Your task to perform on an android device: toggle priority inbox in the gmail app Image 0: 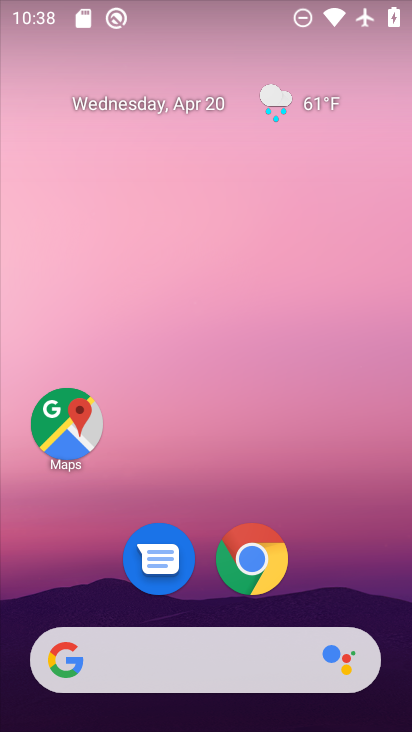
Step 0: drag from (379, 613) to (312, 207)
Your task to perform on an android device: toggle priority inbox in the gmail app Image 1: 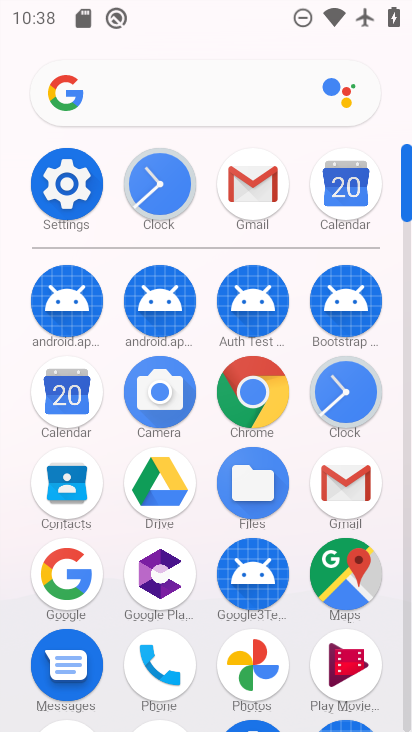
Step 1: click (342, 481)
Your task to perform on an android device: toggle priority inbox in the gmail app Image 2: 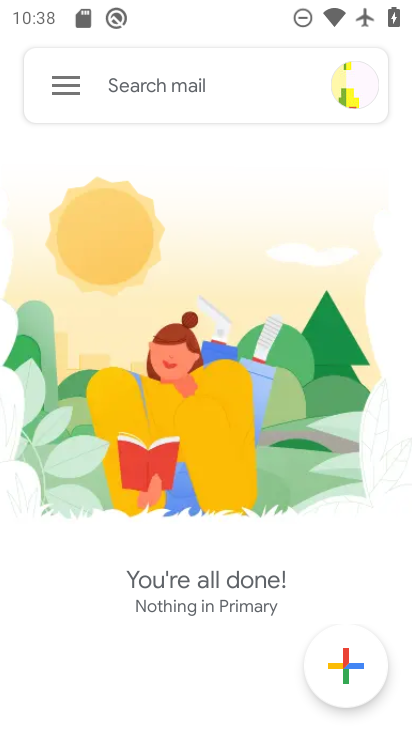
Step 2: click (65, 89)
Your task to perform on an android device: toggle priority inbox in the gmail app Image 3: 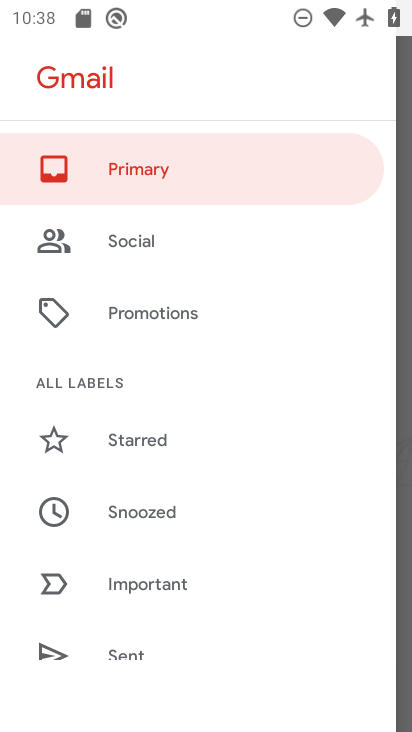
Step 3: drag from (228, 632) to (240, 302)
Your task to perform on an android device: toggle priority inbox in the gmail app Image 4: 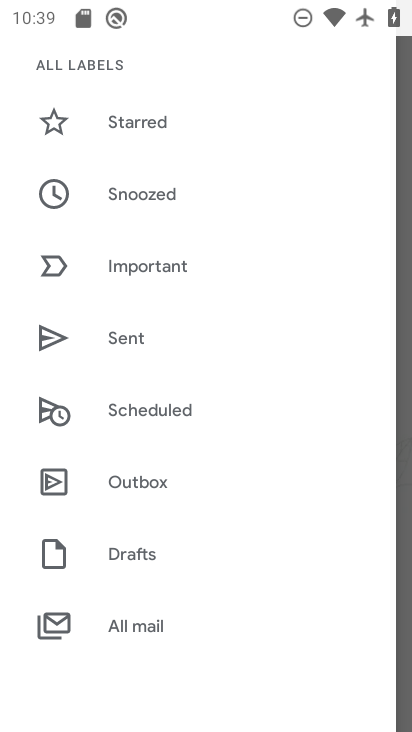
Step 4: drag from (234, 566) to (271, 97)
Your task to perform on an android device: toggle priority inbox in the gmail app Image 5: 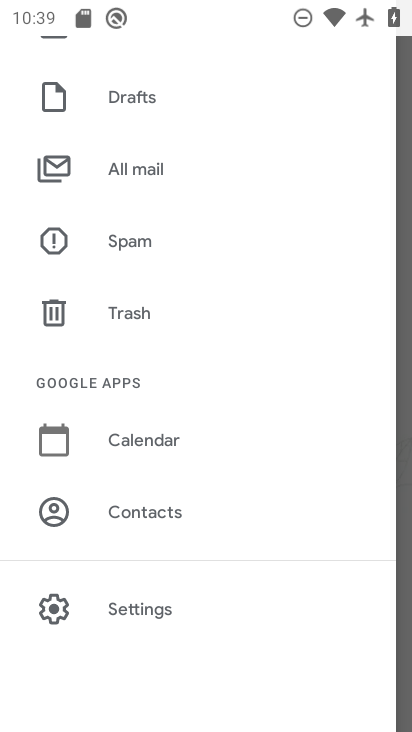
Step 5: click (128, 610)
Your task to perform on an android device: toggle priority inbox in the gmail app Image 6: 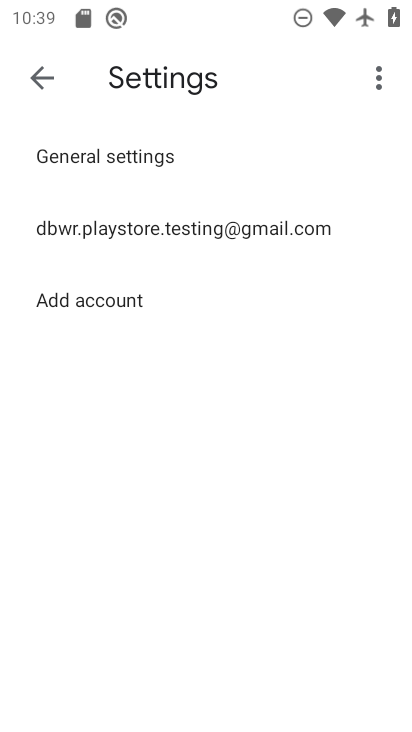
Step 6: click (128, 224)
Your task to perform on an android device: toggle priority inbox in the gmail app Image 7: 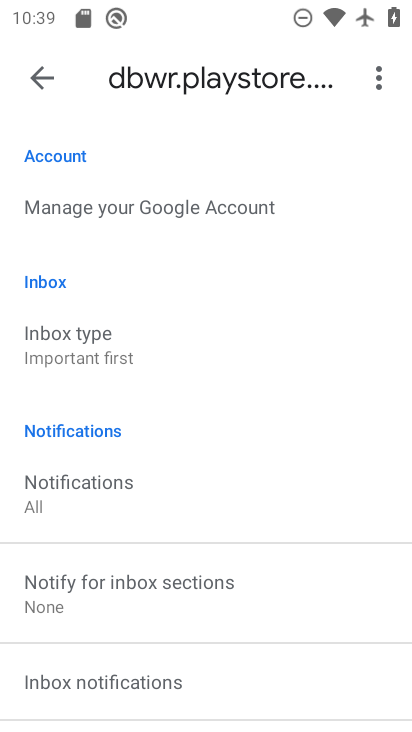
Step 7: click (80, 347)
Your task to perform on an android device: toggle priority inbox in the gmail app Image 8: 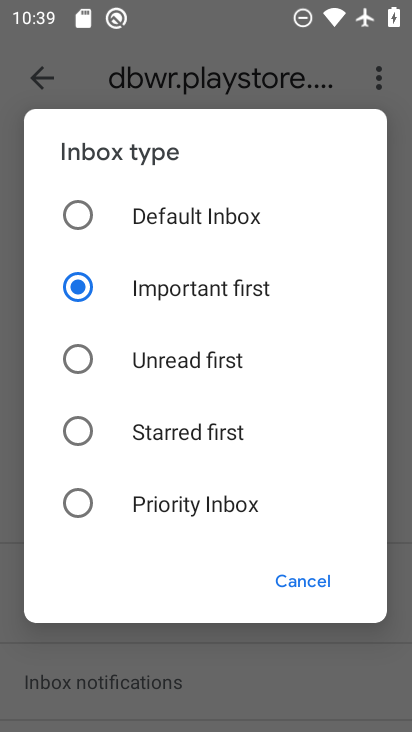
Step 8: click (83, 504)
Your task to perform on an android device: toggle priority inbox in the gmail app Image 9: 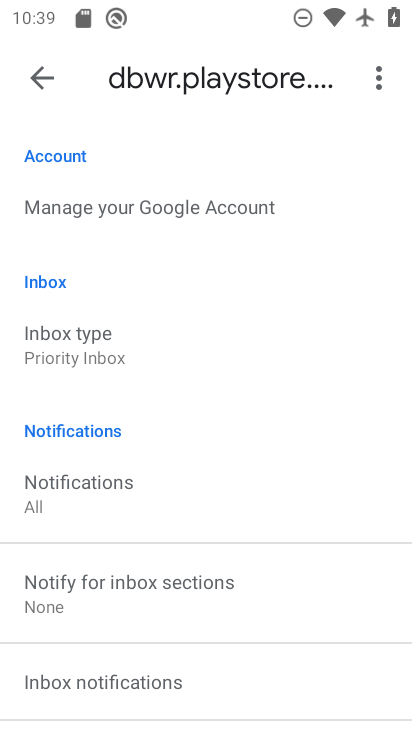
Step 9: task complete